Your task to perform on an android device: toggle wifi Image 0: 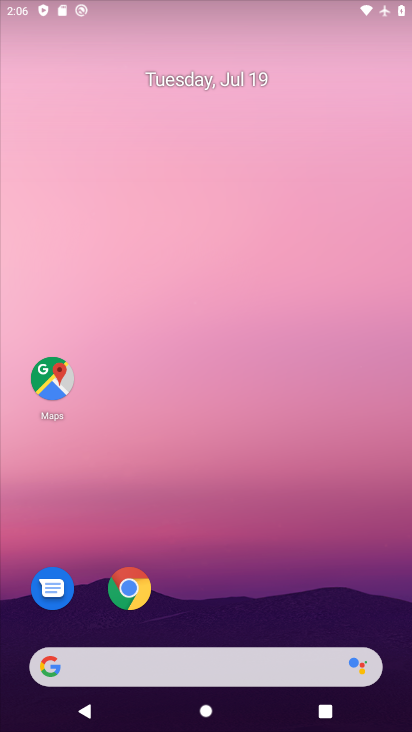
Step 0: press home button
Your task to perform on an android device: toggle wifi Image 1: 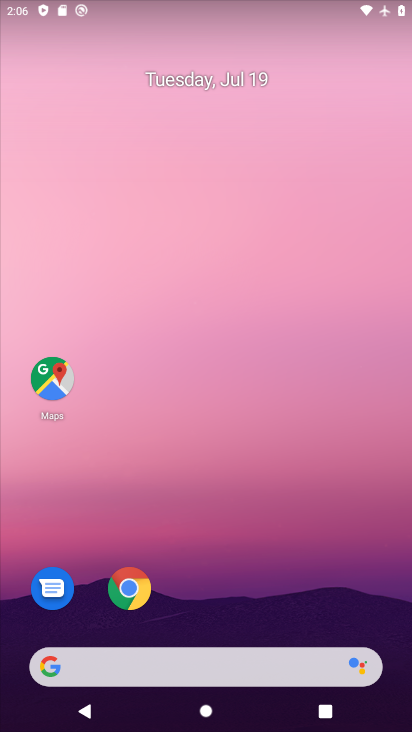
Step 1: drag from (214, 67) to (235, 590)
Your task to perform on an android device: toggle wifi Image 2: 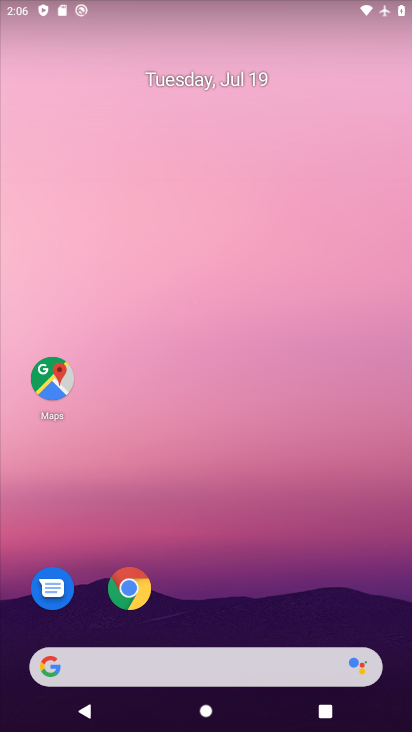
Step 2: drag from (253, 54) to (279, 620)
Your task to perform on an android device: toggle wifi Image 3: 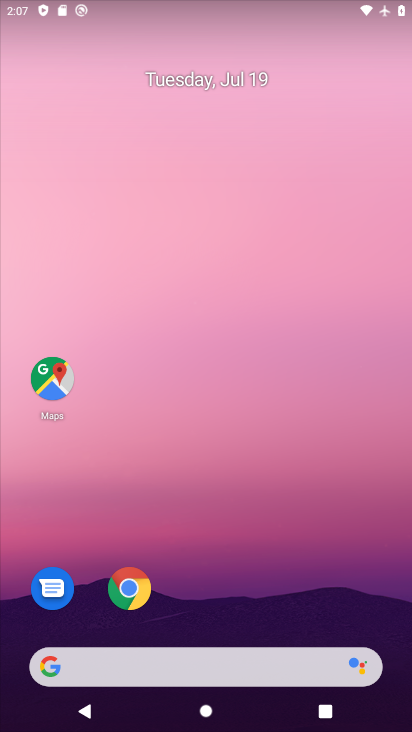
Step 3: drag from (194, 0) to (100, 584)
Your task to perform on an android device: toggle wifi Image 4: 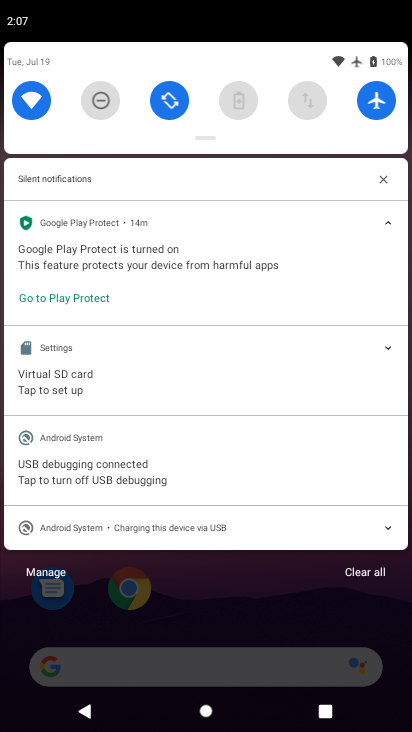
Step 4: click (29, 89)
Your task to perform on an android device: toggle wifi Image 5: 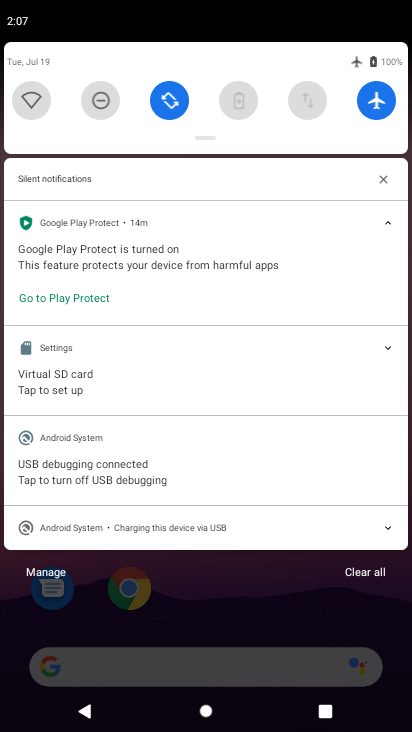
Step 5: task complete